Your task to perform on an android device: Go to Amazon Image 0: 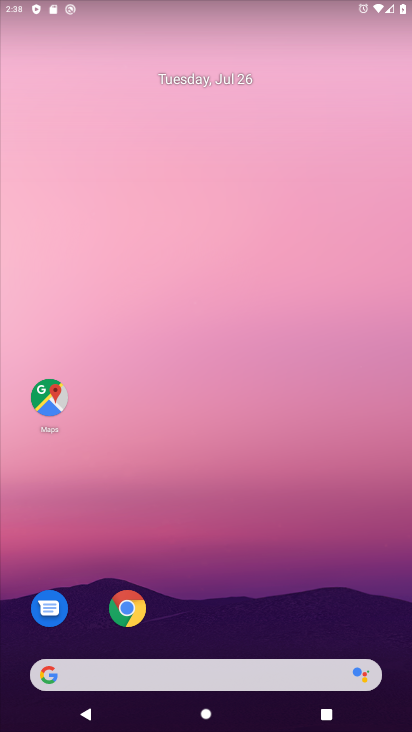
Step 0: click (123, 600)
Your task to perform on an android device: Go to Amazon Image 1: 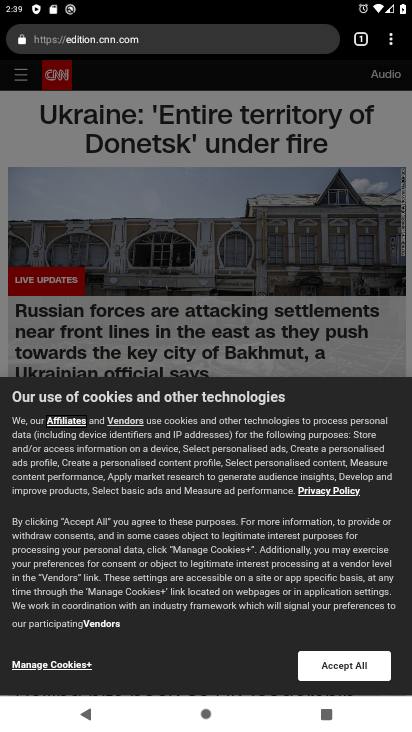
Step 1: click (200, 35)
Your task to perform on an android device: Go to Amazon Image 2: 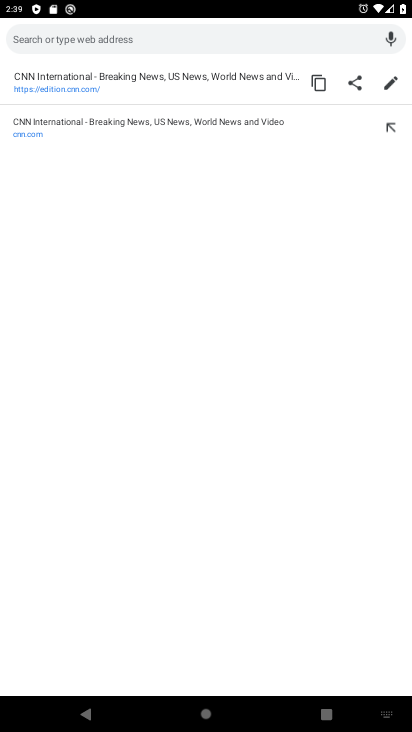
Step 2: type "amazon"
Your task to perform on an android device: Go to Amazon Image 3: 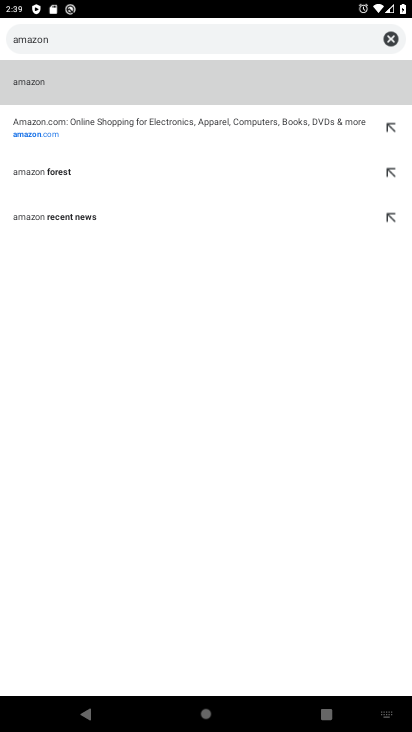
Step 3: click (137, 80)
Your task to perform on an android device: Go to Amazon Image 4: 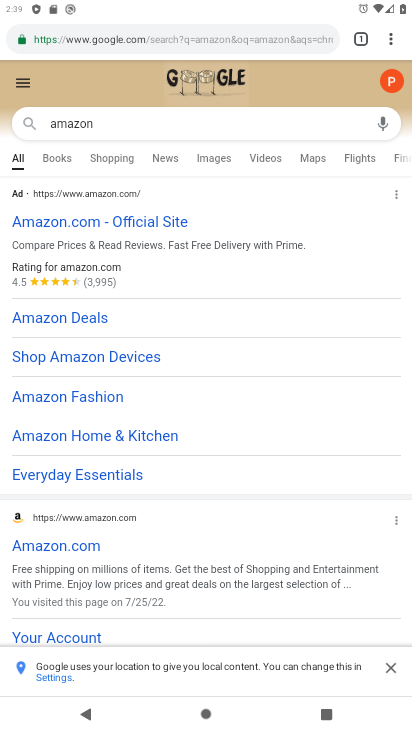
Step 4: click (60, 224)
Your task to perform on an android device: Go to Amazon Image 5: 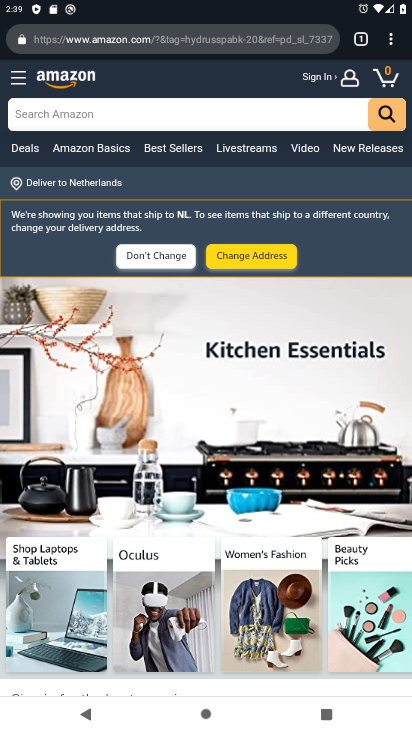
Step 5: task complete